Your task to perform on an android device: Open ESPN.com Image 0: 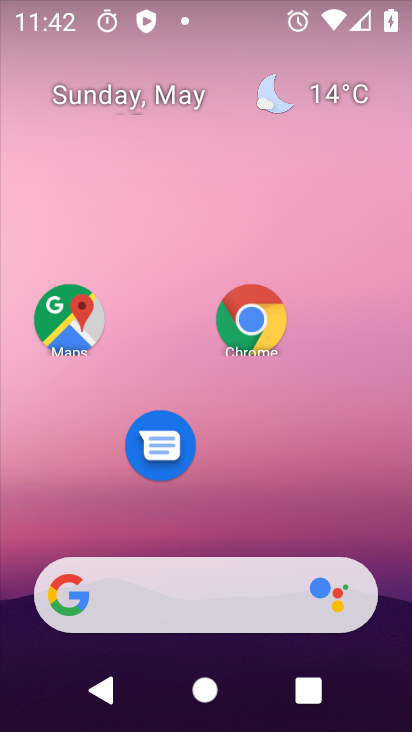
Step 0: click (249, 336)
Your task to perform on an android device: Open ESPN.com Image 1: 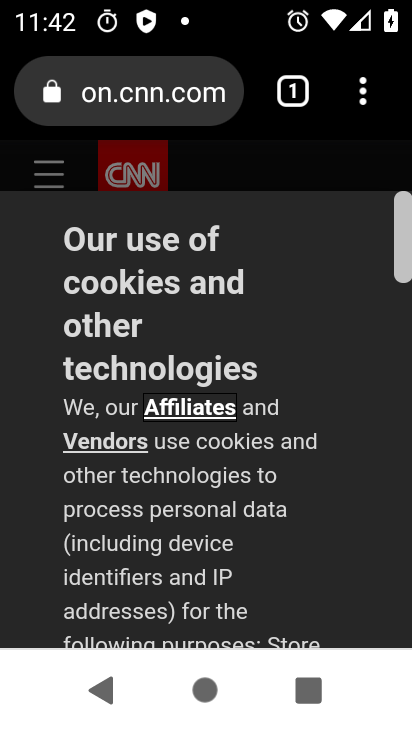
Step 1: drag from (354, 93) to (225, 175)
Your task to perform on an android device: Open ESPN.com Image 2: 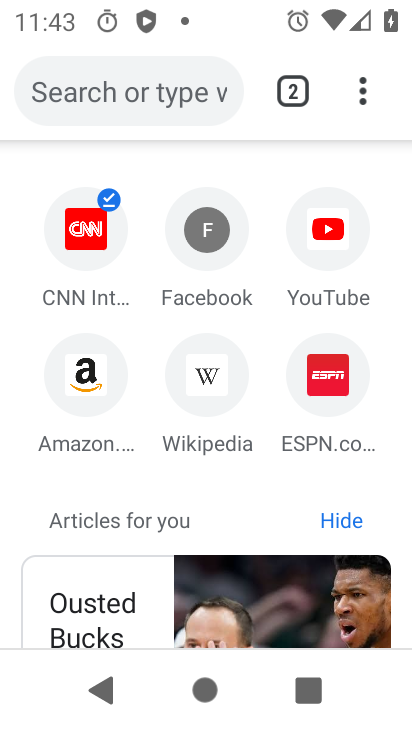
Step 2: click (339, 378)
Your task to perform on an android device: Open ESPN.com Image 3: 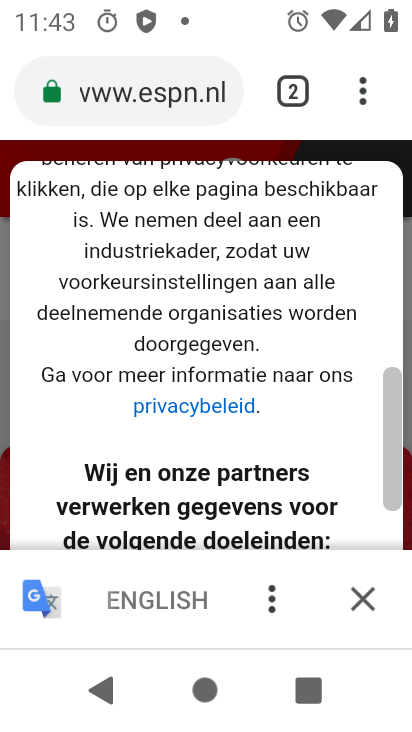
Step 3: task complete